Your task to perform on an android device: set an alarm Image 0: 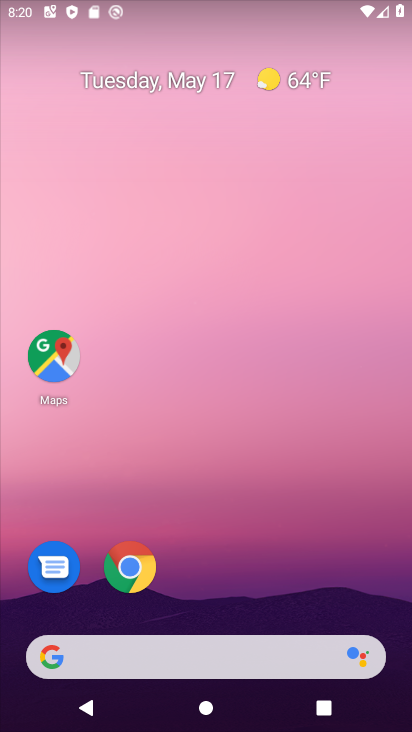
Step 0: drag from (337, 592) to (198, 21)
Your task to perform on an android device: set an alarm Image 1: 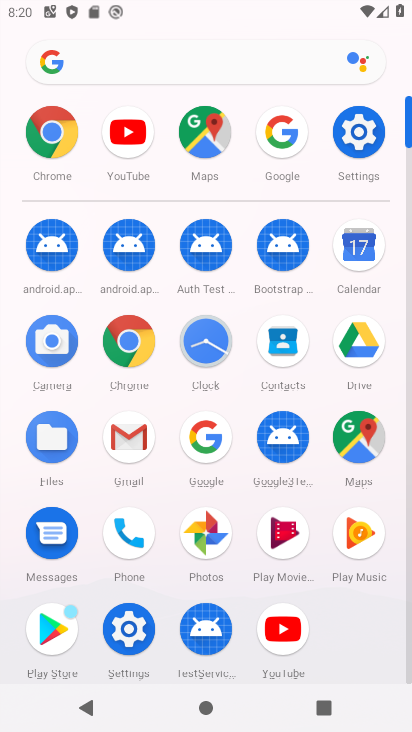
Step 1: click (200, 342)
Your task to perform on an android device: set an alarm Image 2: 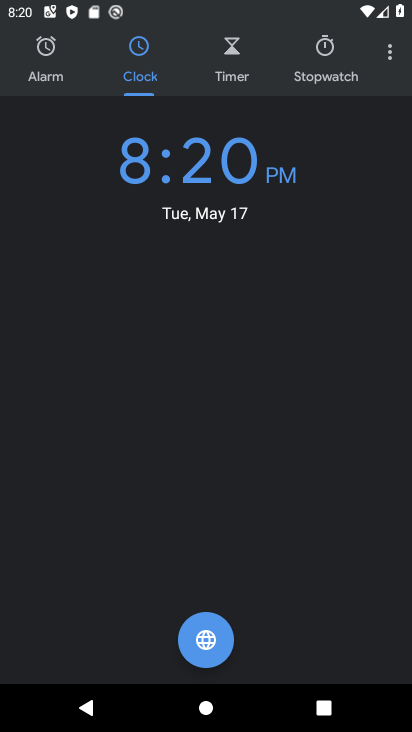
Step 2: click (39, 48)
Your task to perform on an android device: set an alarm Image 3: 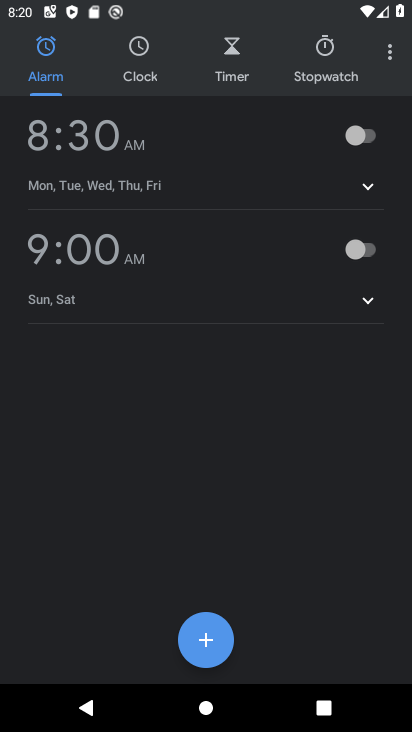
Step 3: click (345, 133)
Your task to perform on an android device: set an alarm Image 4: 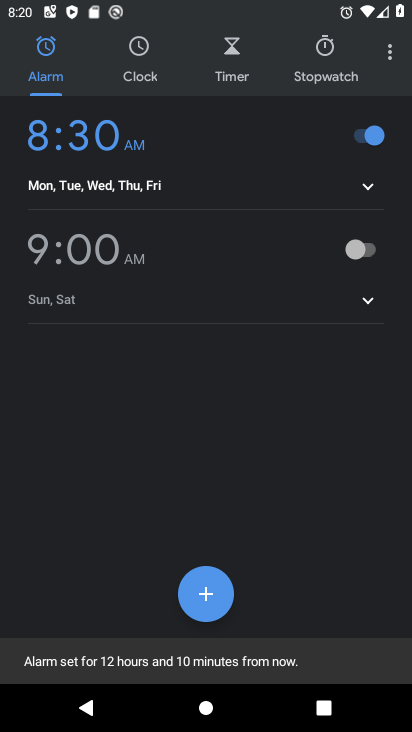
Step 4: task complete